Your task to perform on an android device: Open location settings Image 0: 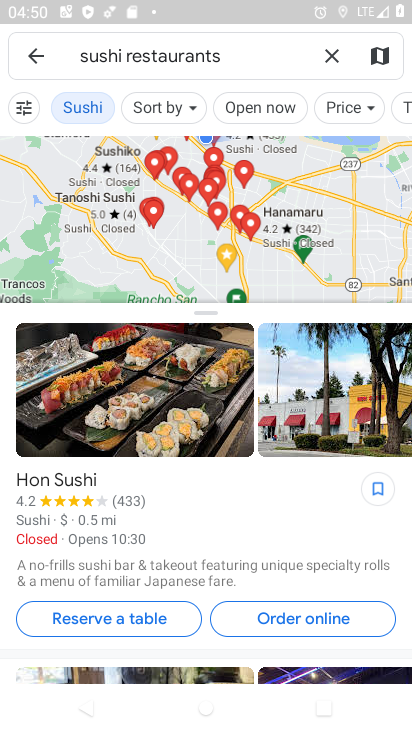
Step 0: press home button
Your task to perform on an android device: Open location settings Image 1: 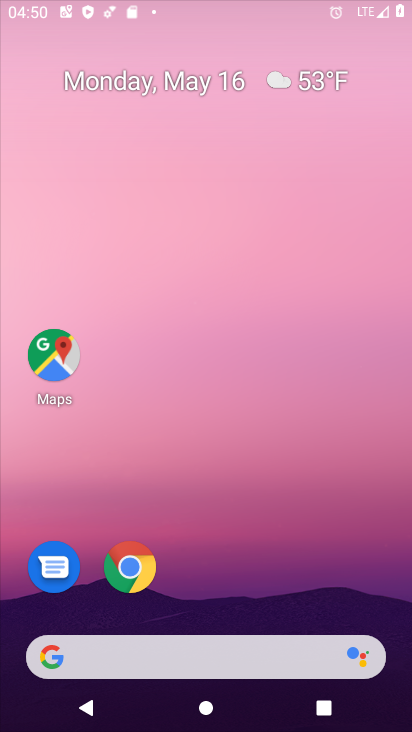
Step 1: drag from (296, 604) to (296, 98)
Your task to perform on an android device: Open location settings Image 2: 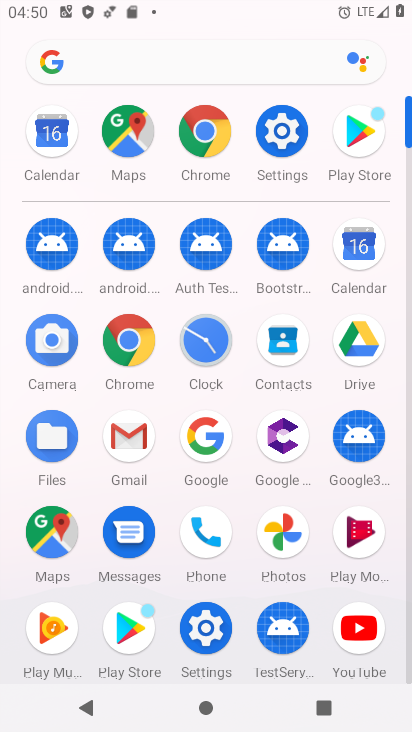
Step 2: click (295, 145)
Your task to perform on an android device: Open location settings Image 3: 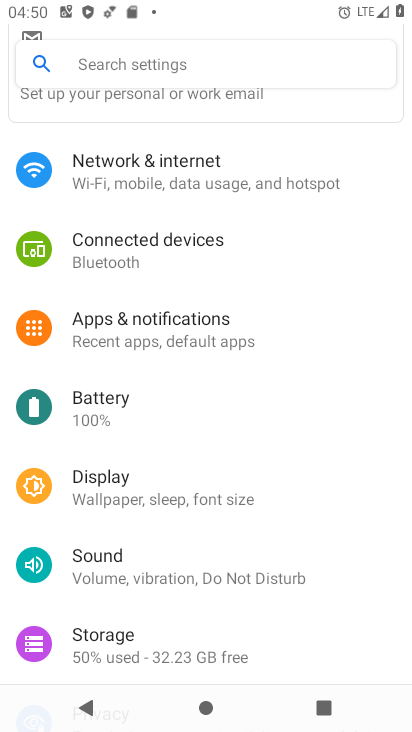
Step 3: drag from (132, 655) to (147, 183)
Your task to perform on an android device: Open location settings Image 4: 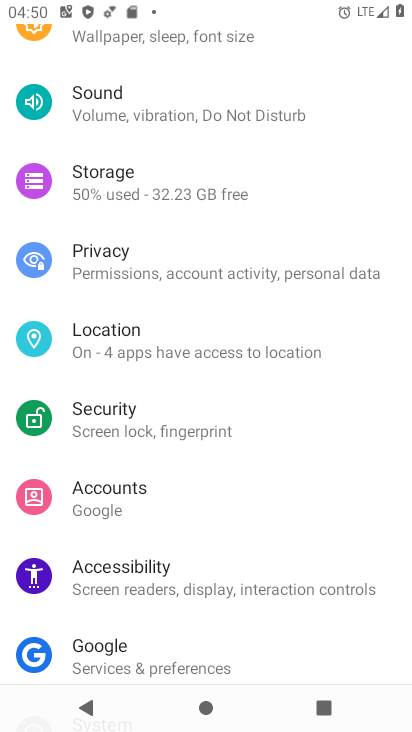
Step 4: click (188, 343)
Your task to perform on an android device: Open location settings Image 5: 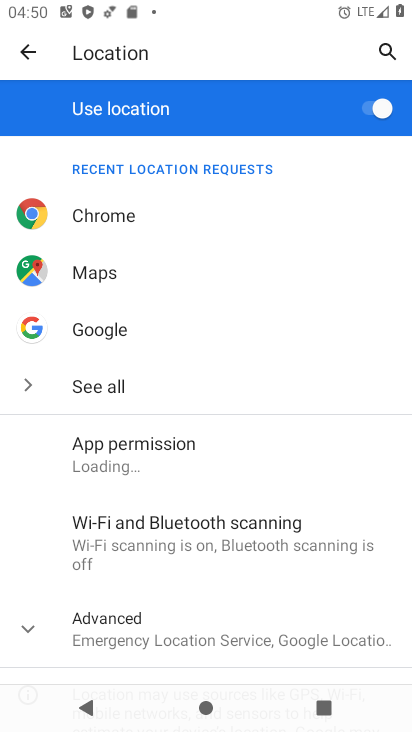
Step 5: task complete